Your task to perform on an android device: Show me productivity apps on the Play Store Image 0: 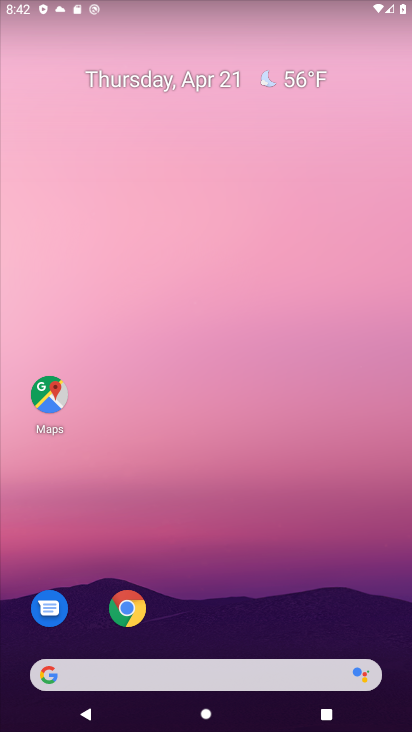
Step 0: drag from (287, 628) to (286, 127)
Your task to perform on an android device: Show me productivity apps on the Play Store Image 1: 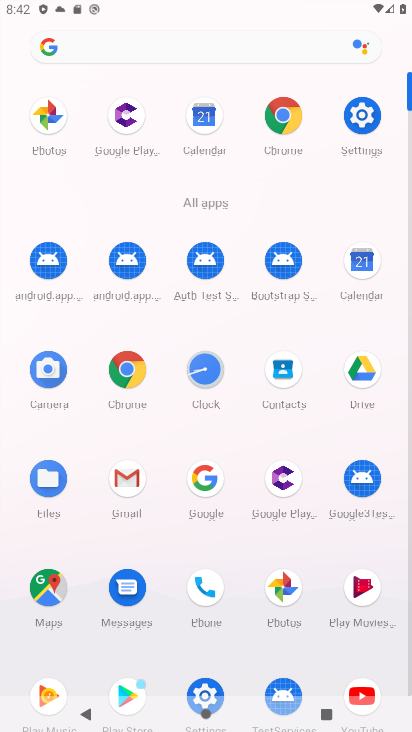
Step 1: drag from (172, 574) to (183, 320)
Your task to perform on an android device: Show me productivity apps on the Play Store Image 2: 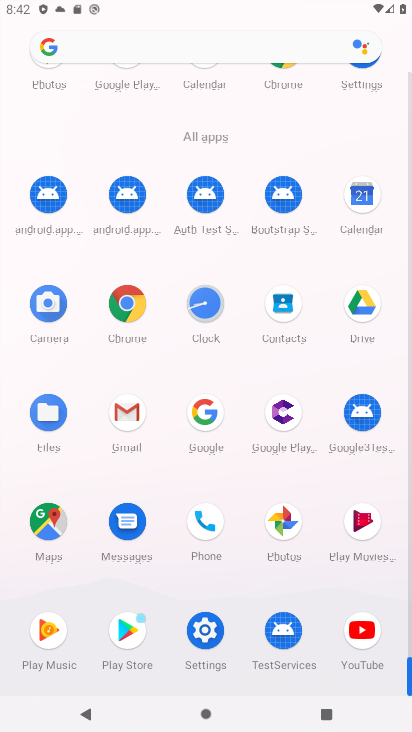
Step 2: click (122, 625)
Your task to perform on an android device: Show me productivity apps on the Play Store Image 3: 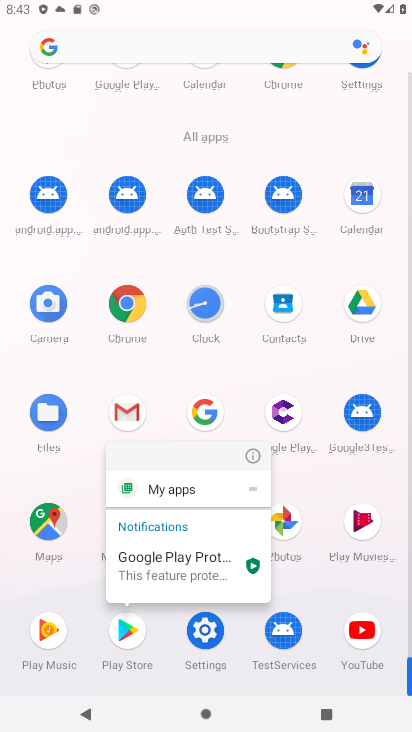
Step 3: click (122, 625)
Your task to perform on an android device: Show me productivity apps on the Play Store Image 4: 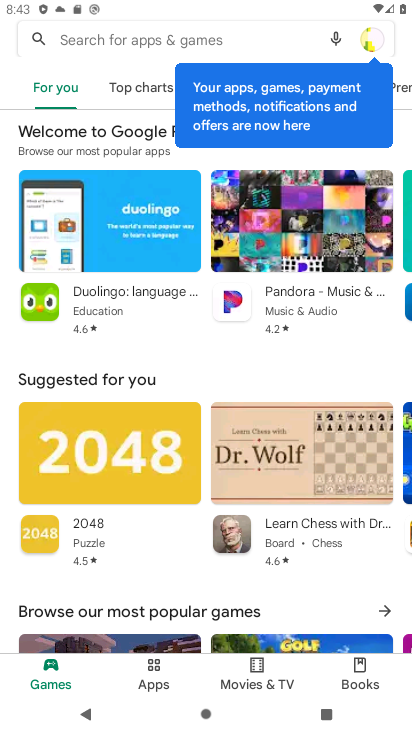
Step 4: click (155, 669)
Your task to perform on an android device: Show me productivity apps on the Play Store Image 5: 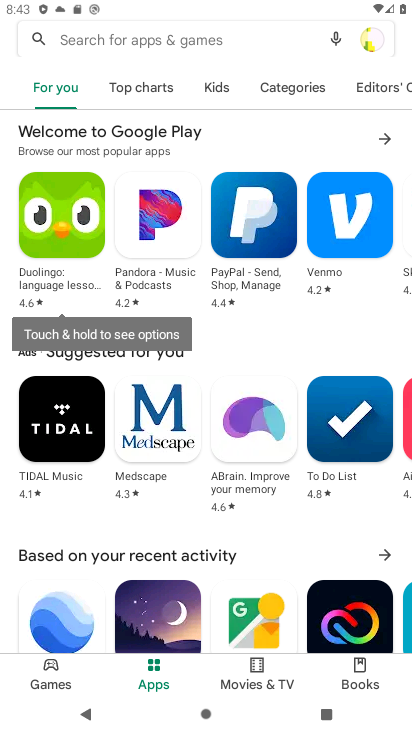
Step 5: drag from (169, 527) to (224, 173)
Your task to perform on an android device: Show me productivity apps on the Play Store Image 6: 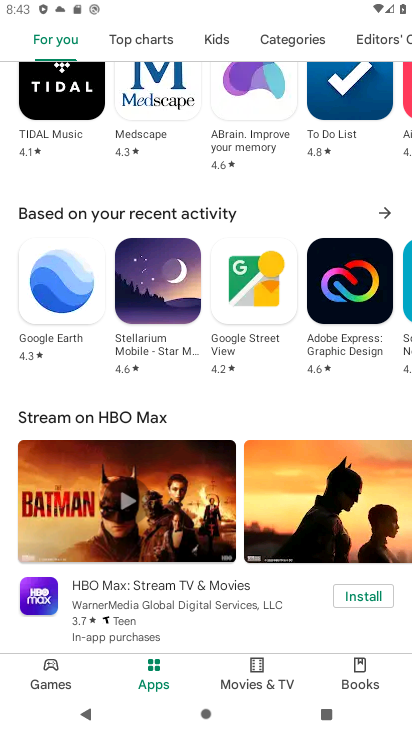
Step 6: drag from (211, 216) to (197, 518)
Your task to perform on an android device: Show me productivity apps on the Play Store Image 7: 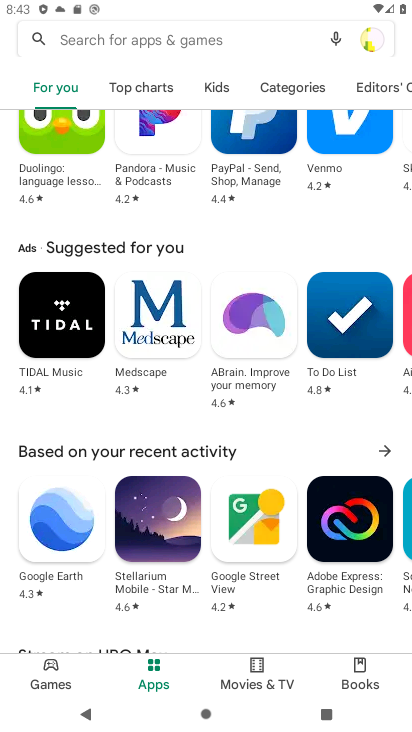
Step 7: click (293, 81)
Your task to perform on an android device: Show me productivity apps on the Play Store Image 8: 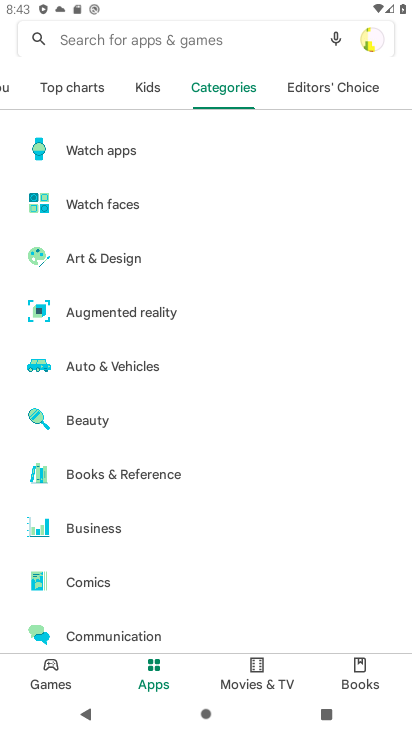
Step 8: drag from (168, 551) to (166, 161)
Your task to perform on an android device: Show me productivity apps on the Play Store Image 9: 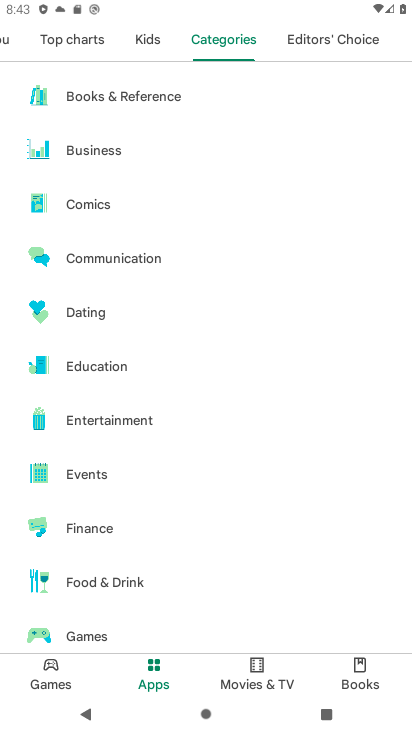
Step 9: drag from (131, 520) to (138, 188)
Your task to perform on an android device: Show me productivity apps on the Play Store Image 10: 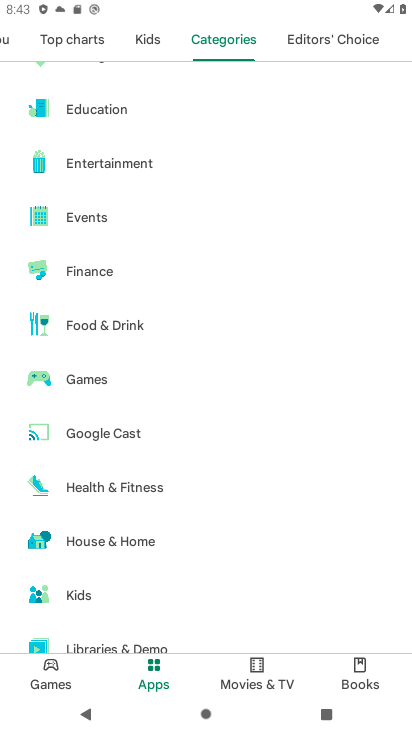
Step 10: drag from (145, 579) to (180, 165)
Your task to perform on an android device: Show me productivity apps on the Play Store Image 11: 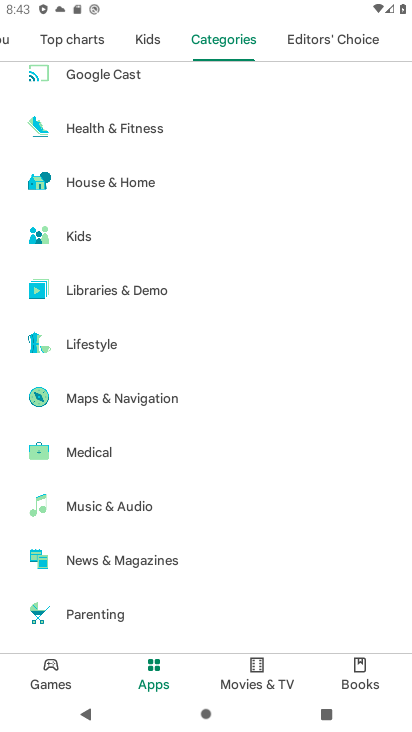
Step 11: drag from (198, 555) to (214, 174)
Your task to perform on an android device: Show me productivity apps on the Play Store Image 12: 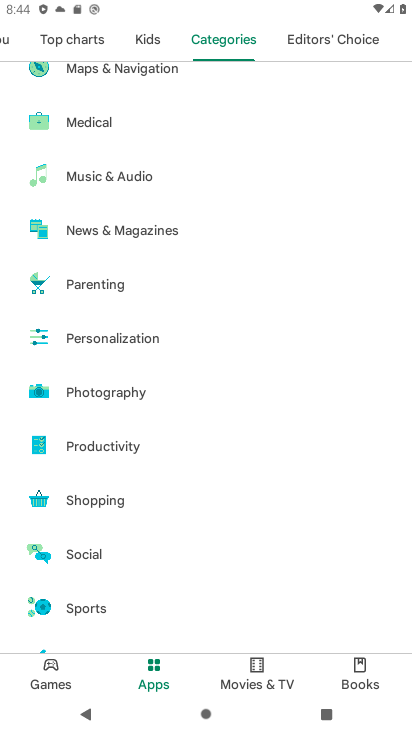
Step 12: click (104, 437)
Your task to perform on an android device: Show me productivity apps on the Play Store Image 13: 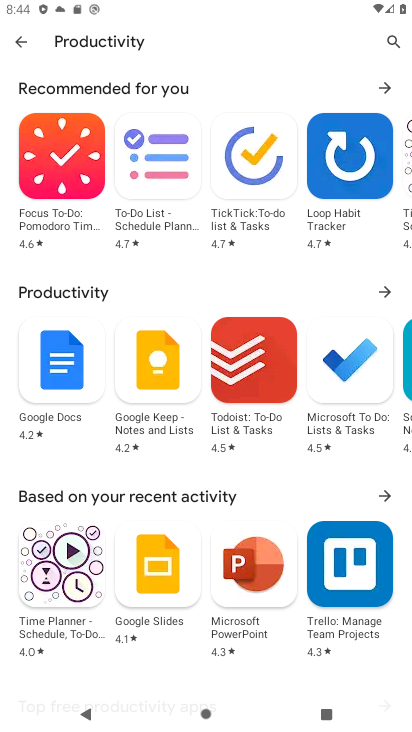
Step 13: task complete